Your task to perform on an android device: open app "Google Pay: Save, Pay, Manage" (install if not already installed) Image 0: 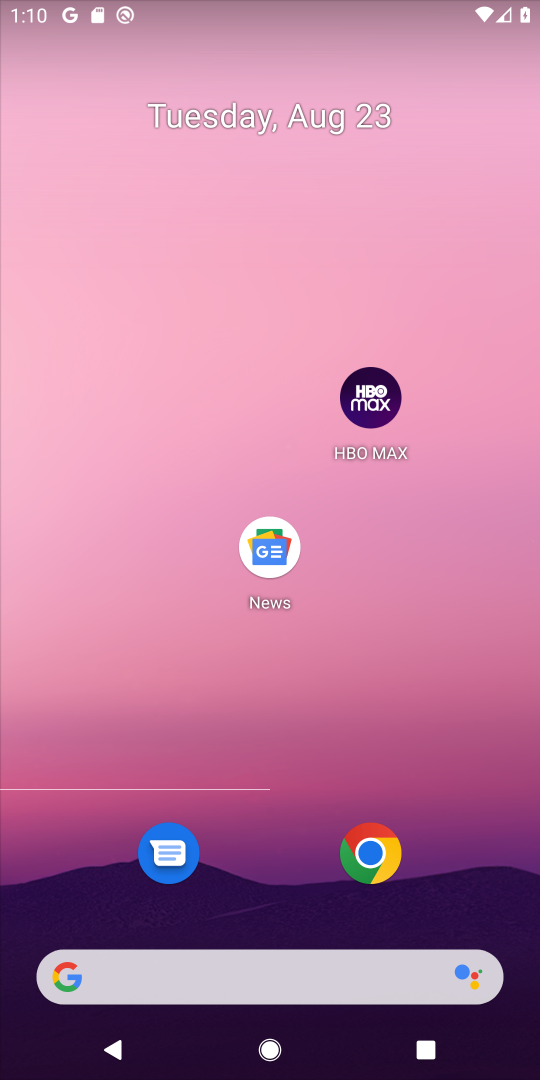
Step 0: drag from (528, 963) to (434, 122)
Your task to perform on an android device: open app "Google Pay: Save, Pay, Manage" (install if not already installed) Image 1: 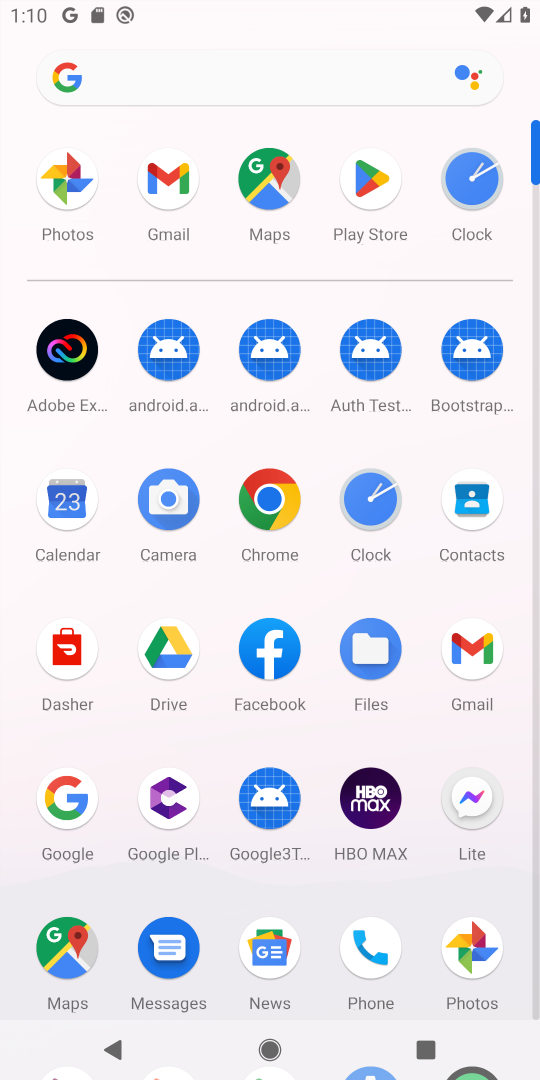
Step 1: drag from (416, 834) to (384, 402)
Your task to perform on an android device: open app "Google Pay: Save, Pay, Manage" (install if not already installed) Image 2: 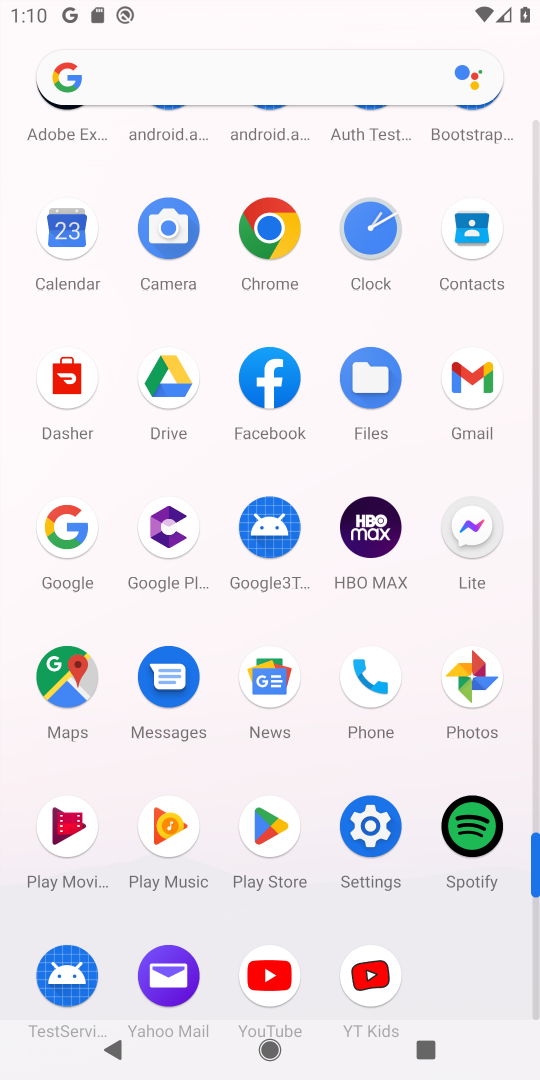
Step 2: click (270, 824)
Your task to perform on an android device: open app "Google Pay: Save, Pay, Manage" (install if not already installed) Image 3: 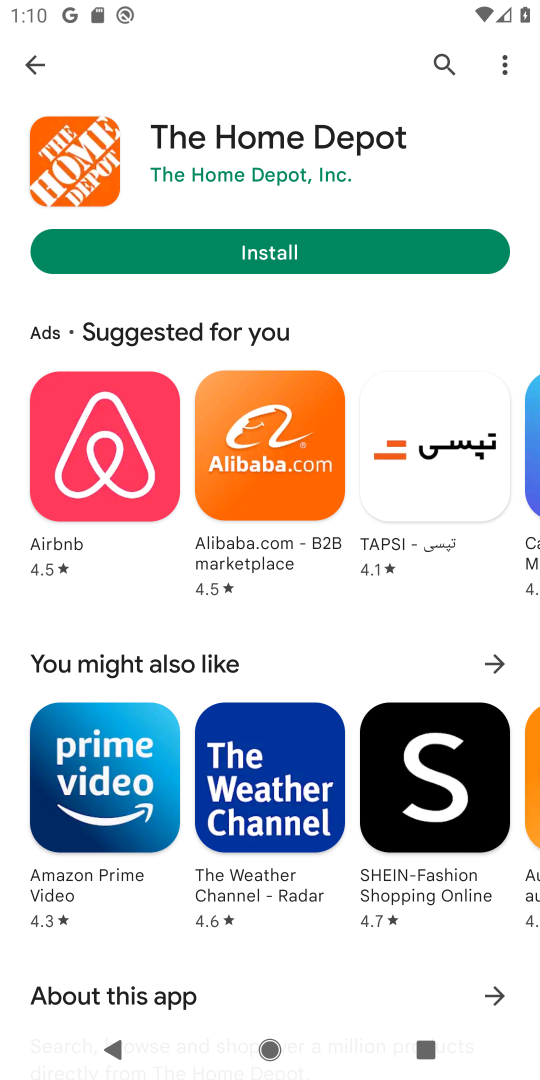
Step 3: click (436, 56)
Your task to perform on an android device: open app "Google Pay: Save, Pay, Manage" (install if not already installed) Image 4: 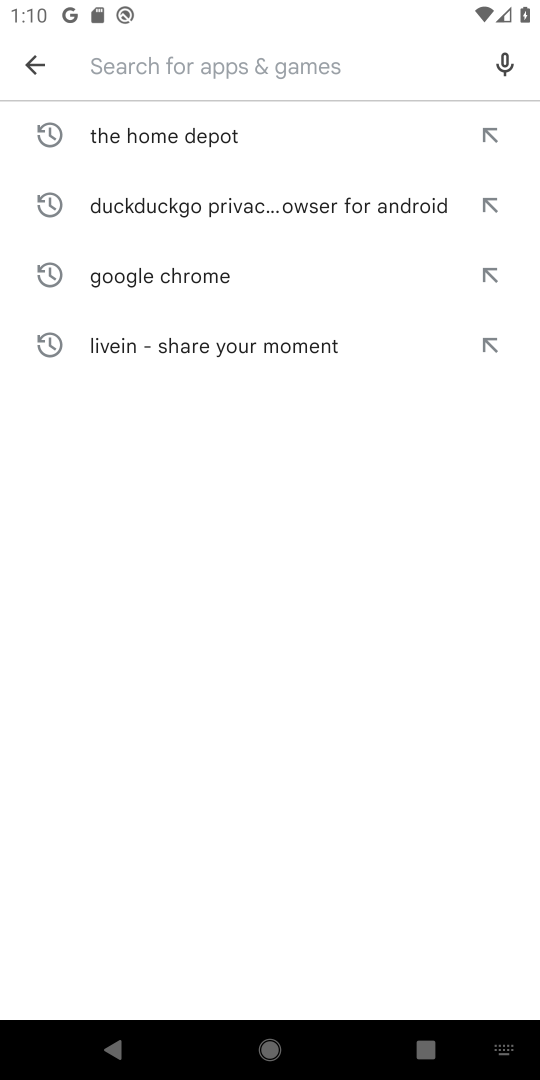
Step 4: type "Google Pay: Save, Pay, Manage"
Your task to perform on an android device: open app "Google Pay: Save, Pay, Manage" (install if not already installed) Image 5: 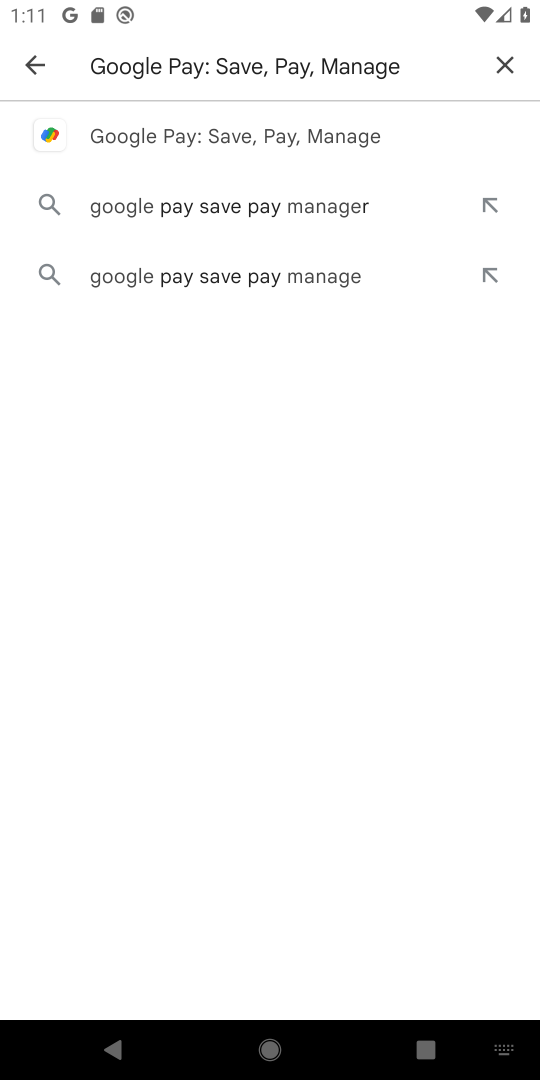
Step 5: click (181, 130)
Your task to perform on an android device: open app "Google Pay: Save, Pay, Manage" (install if not already installed) Image 6: 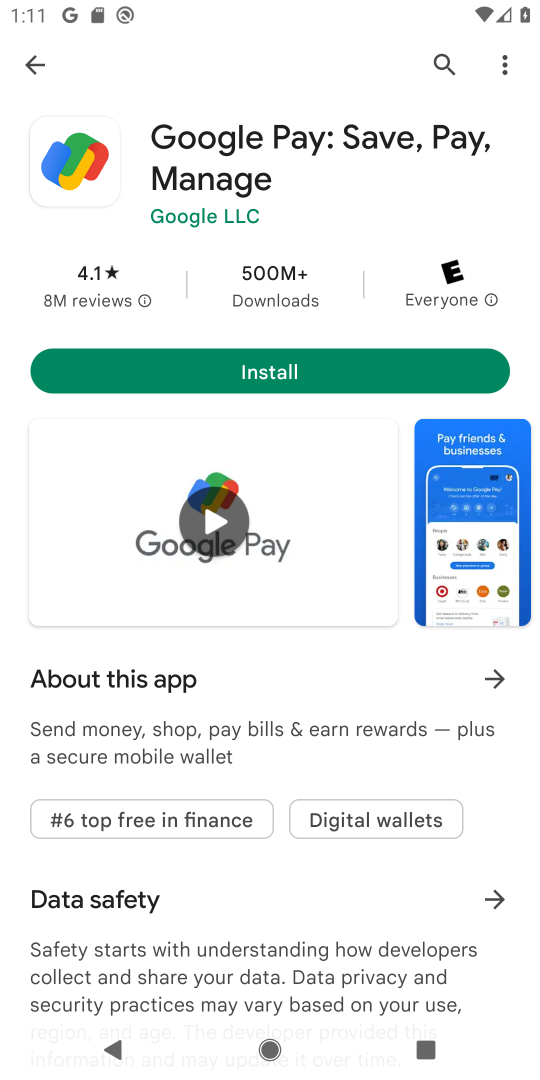
Step 6: click (264, 370)
Your task to perform on an android device: open app "Google Pay: Save, Pay, Manage" (install if not already installed) Image 7: 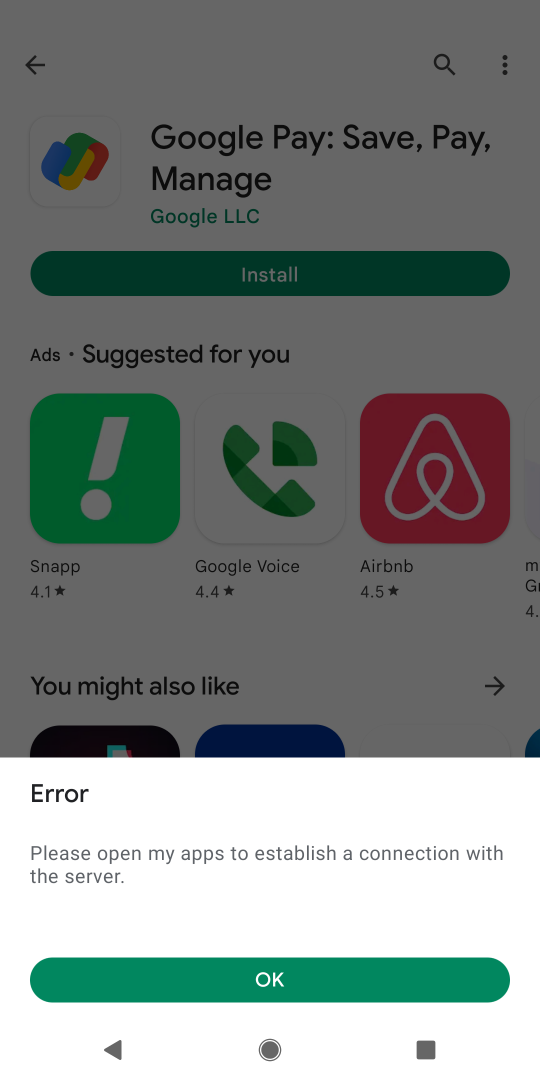
Step 7: click (274, 977)
Your task to perform on an android device: open app "Google Pay: Save, Pay, Manage" (install if not already installed) Image 8: 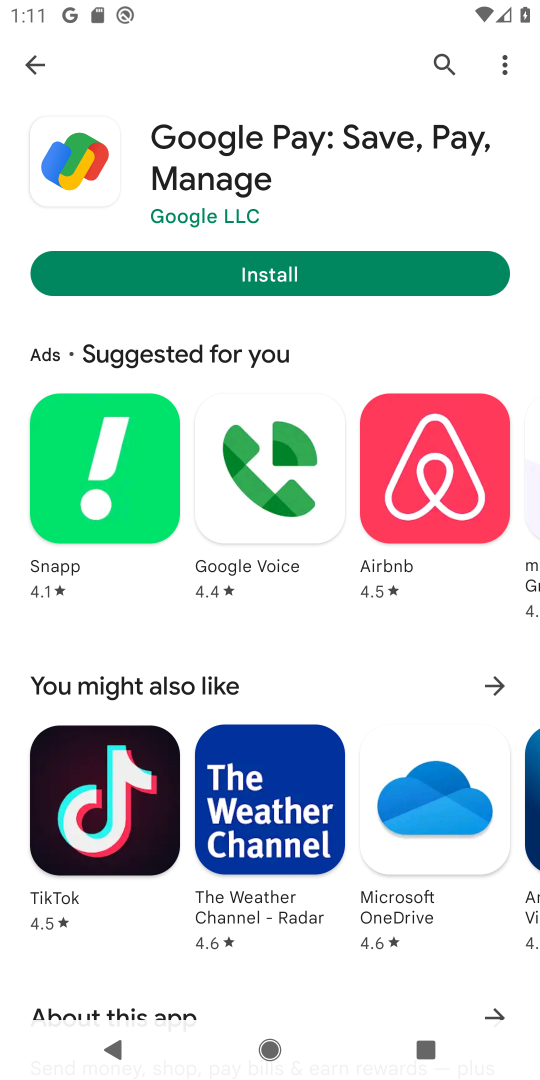
Step 8: click (266, 273)
Your task to perform on an android device: open app "Google Pay: Save, Pay, Manage" (install if not already installed) Image 9: 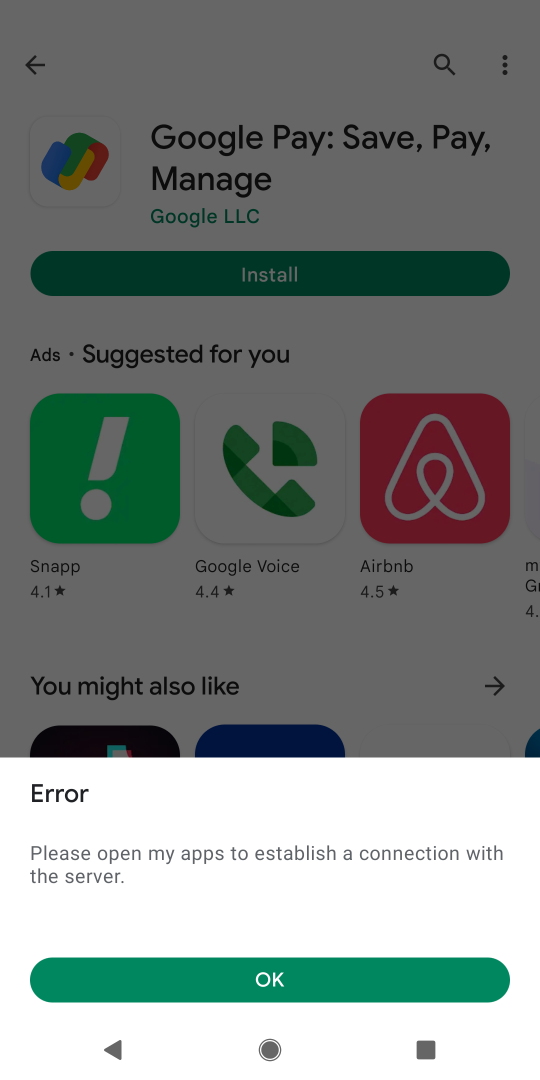
Step 9: click (267, 977)
Your task to perform on an android device: open app "Google Pay: Save, Pay, Manage" (install if not already installed) Image 10: 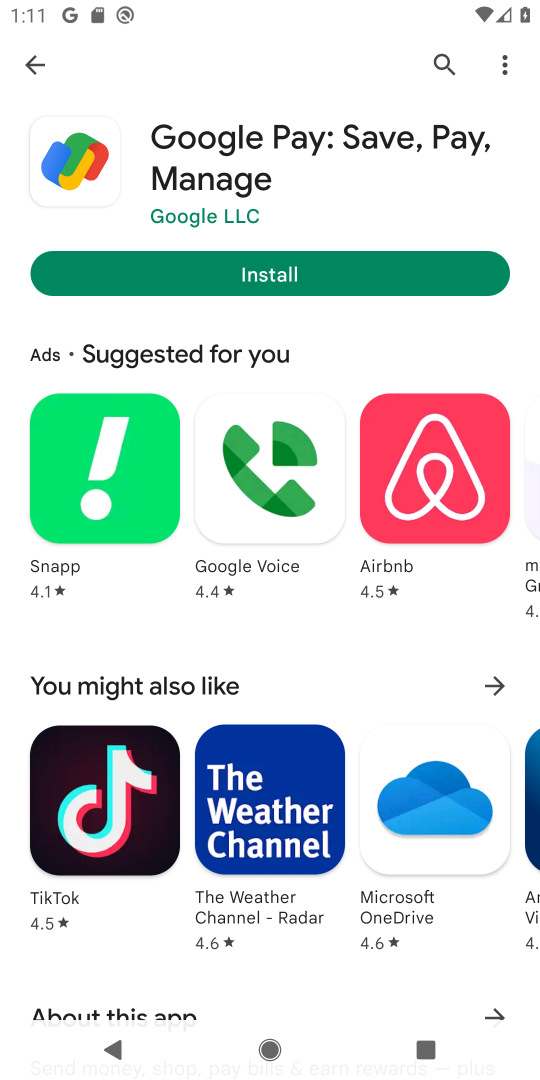
Step 10: task complete